Your task to perform on an android device: turn on data saver in the chrome app Image 0: 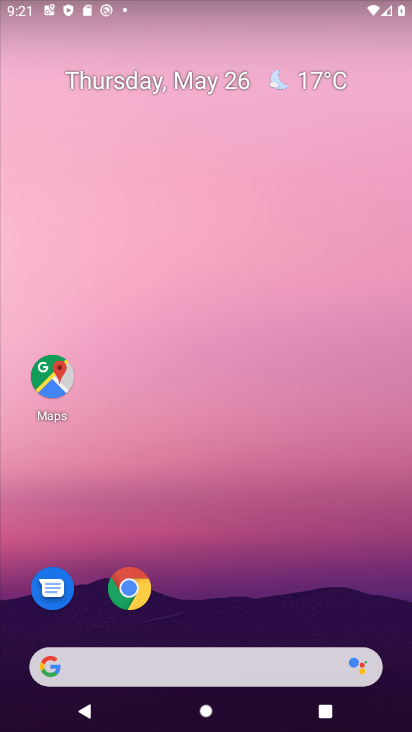
Step 0: click (133, 585)
Your task to perform on an android device: turn on data saver in the chrome app Image 1: 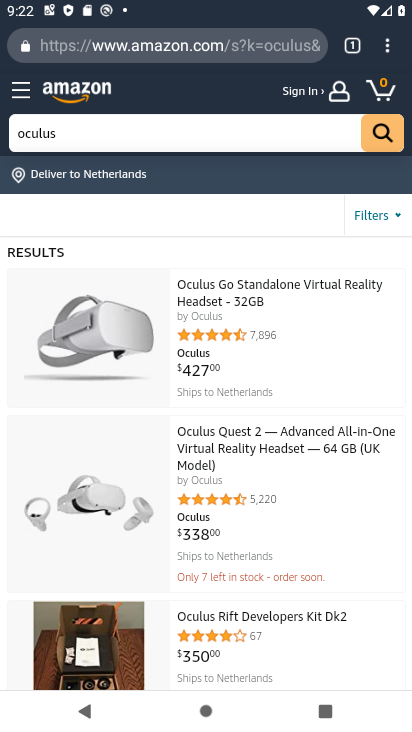
Step 1: click (388, 49)
Your task to perform on an android device: turn on data saver in the chrome app Image 2: 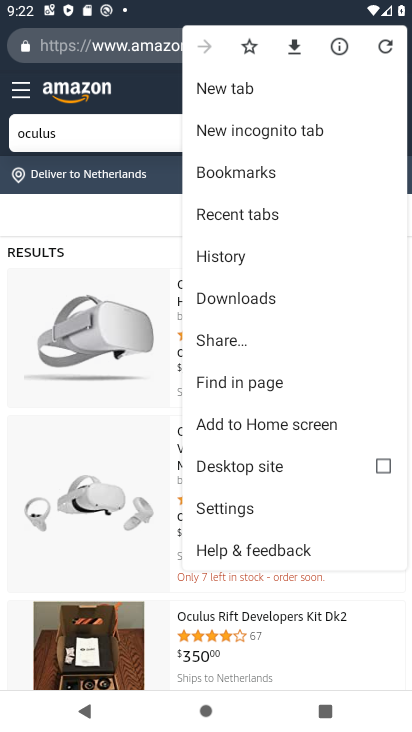
Step 2: click (238, 511)
Your task to perform on an android device: turn on data saver in the chrome app Image 3: 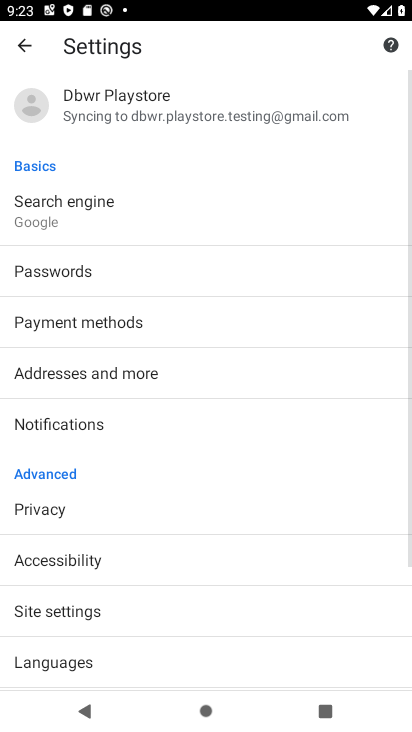
Step 3: drag from (178, 631) to (167, 235)
Your task to perform on an android device: turn on data saver in the chrome app Image 4: 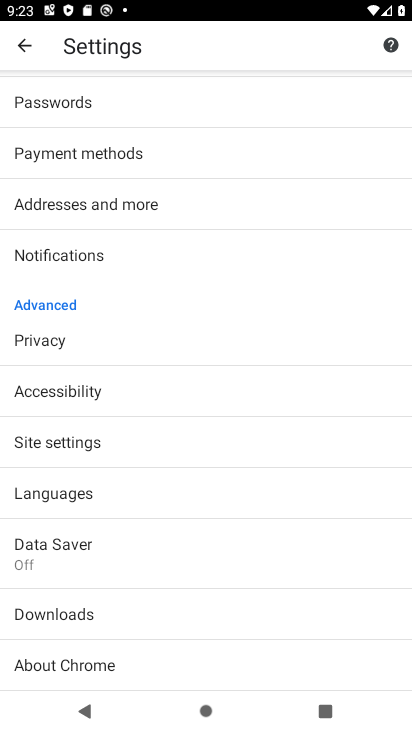
Step 4: click (61, 550)
Your task to perform on an android device: turn on data saver in the chrome app Image 5: 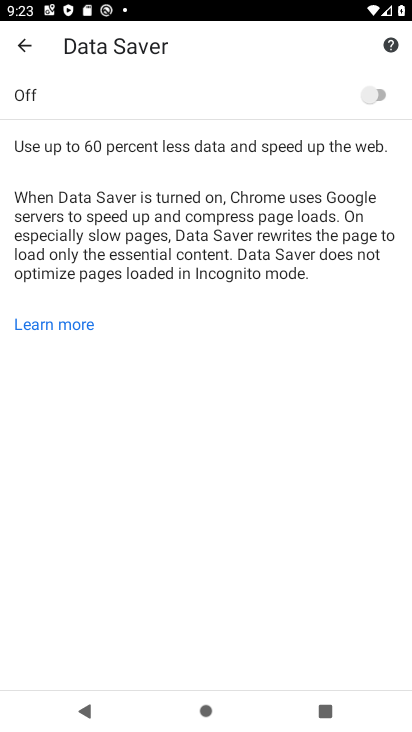
Step 5: click (382, 96)
Your task to perform on an android device: turn on data saver in the chrome app Image 6: 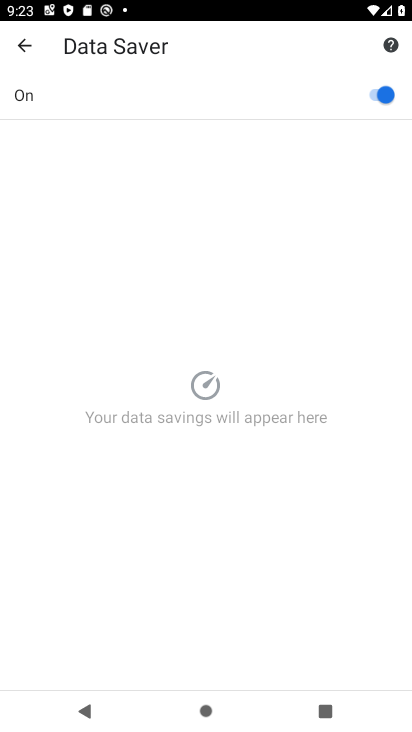
Step 6: task complete